Your task to perform on an android device: Go to Google Image 0: 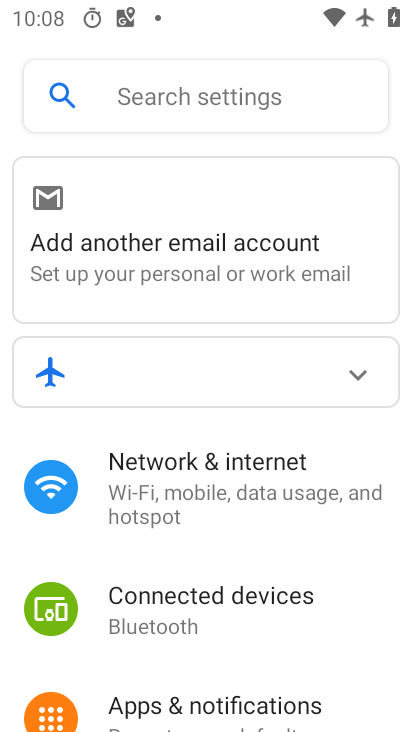
Step 0: press home button
Your task to perform on an android device: Go to Google Image 1: 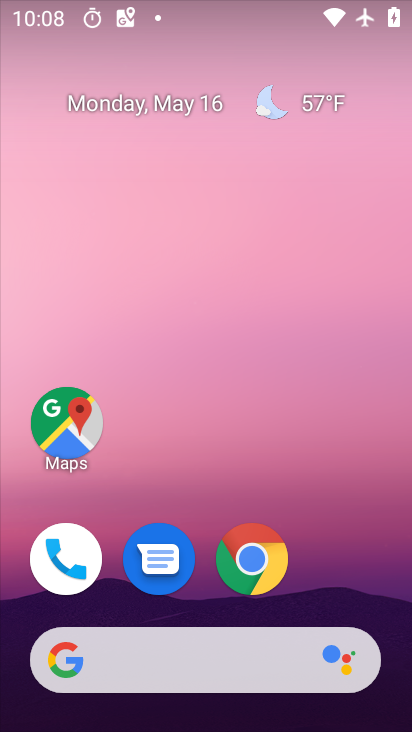
Step 1: drag from (347, 580) to (337, 110)
Your task to perform on an android device: Go to Google Image 2: 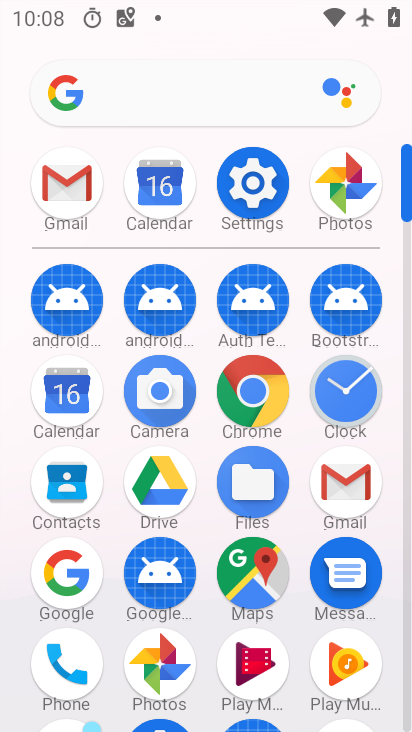
Step 2: click (65, 573)
Your task to perform on an android device: Go to Google Image 3: 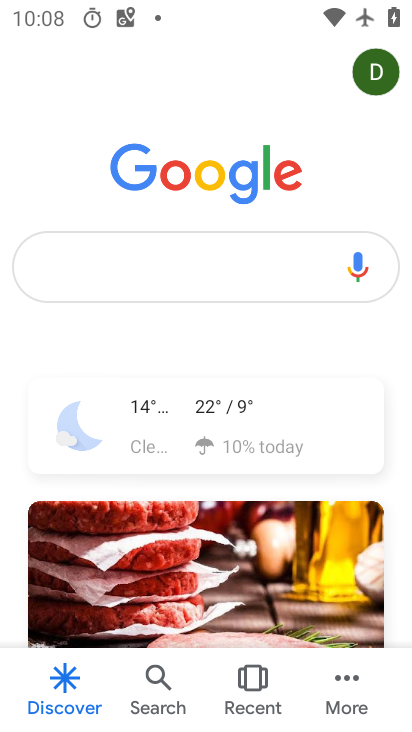
Step 3: task complete